Your task to perform on an android device: Is it going to rain this weekend? Image 0: 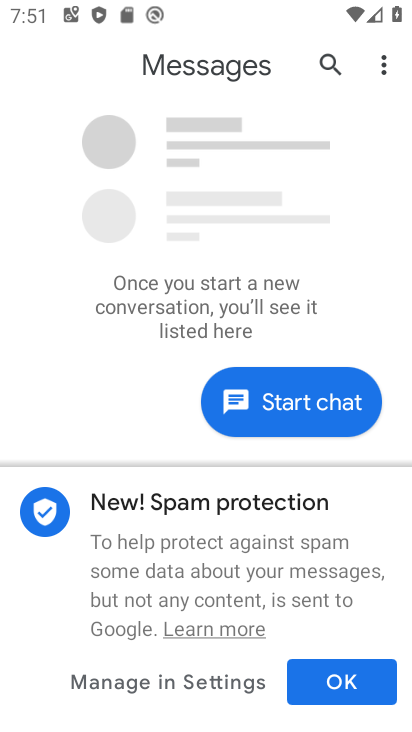
Step 0: press home button
Your task to perform on an android device: Is it going to rain this weekend? Image 1: 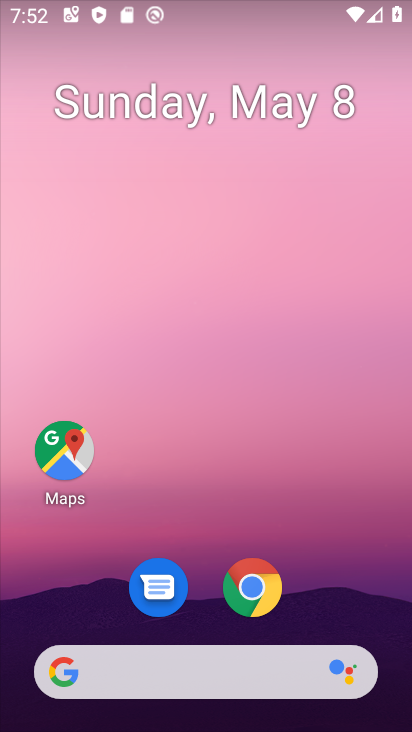
Step 1: drag from (196, 537) to (242, 0)
Your task to perform on an android device: Is it going to rain this weekend? Image 2: 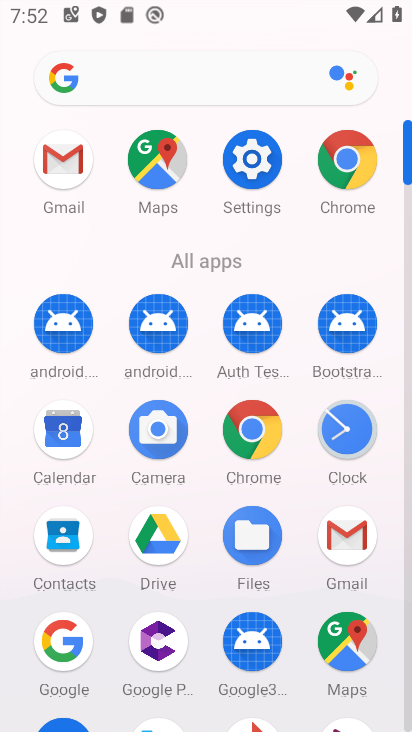
Step 2: click (58, 641)
Your task to perform on an android device: Is it going to rain this weekend? Image 3: 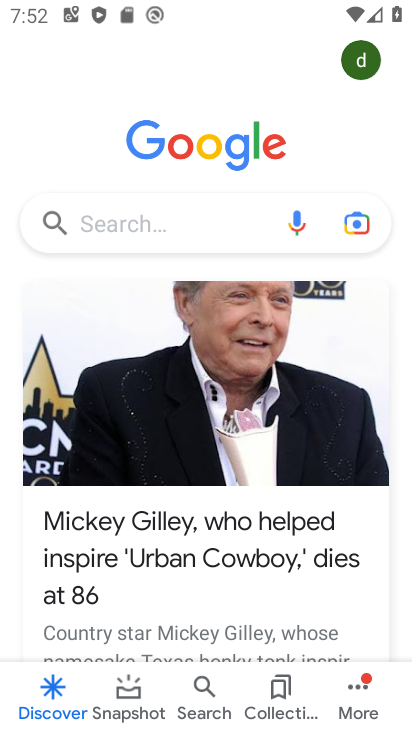
Step 3: click (171, 228)
Your task to perform on an android device: Is it going to rain this weekend? Image 4: 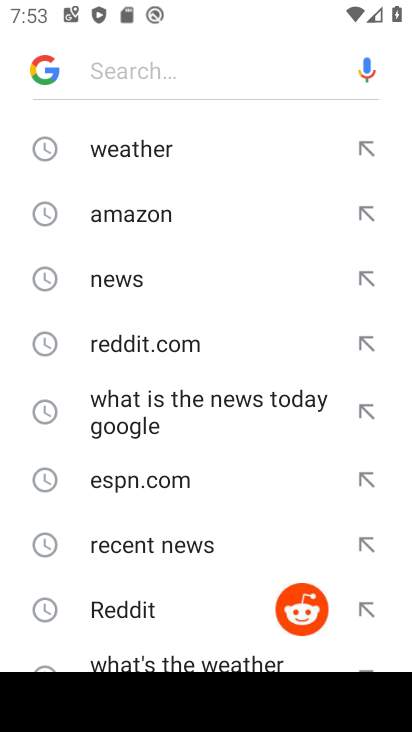
Step 4: type "rain weekend"
Your task to perform on an android device: Is it going to rain this weekend? Image 5: 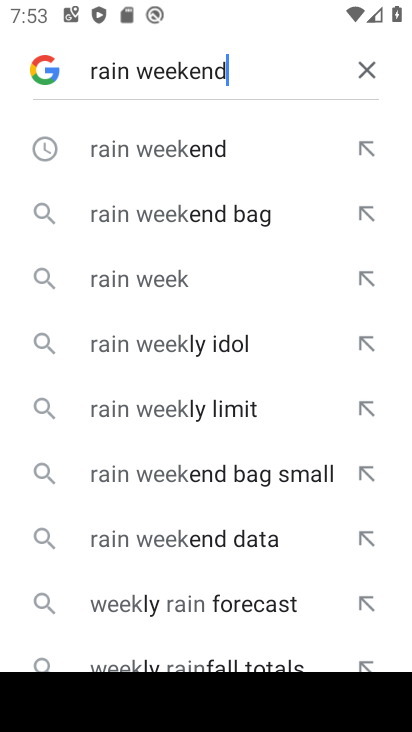
Step 5: type ""
Your task to perform on an android device: Is it going to rain this weekend? Image 6: 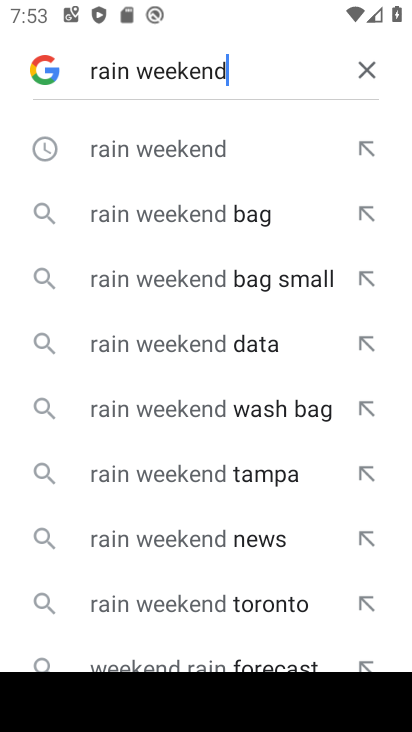
Step 6: click (161, 148)
Your task to perform on an android device: Is it going to rain this weekend? Image 7: 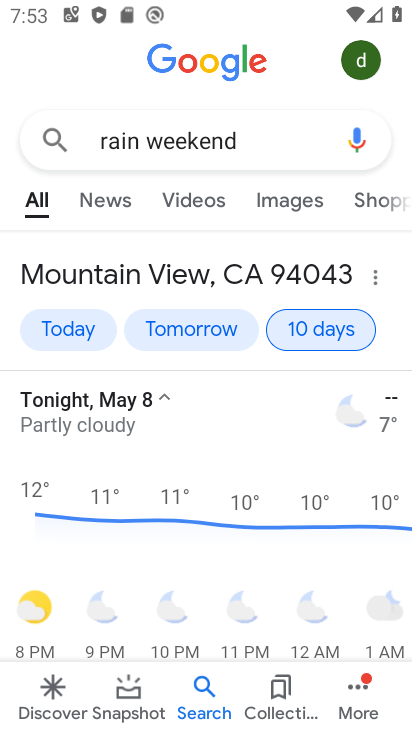
Step 7: task complete